Your task to perform on an android device: clear all cookies in the chrome app Image 0: 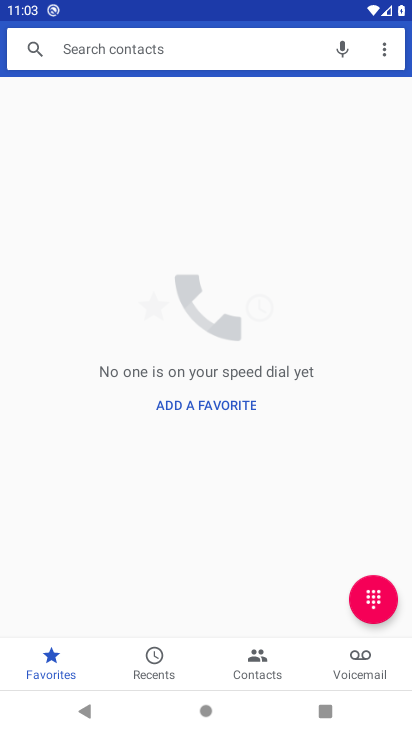
Step 0: press home button
Your task to perform on an android device: clear all cookies in the chrome app Image 1: 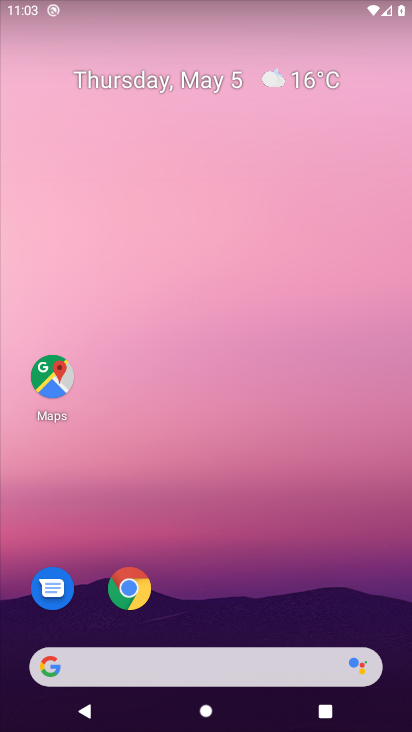
Step 1: drag from (232, 618) to (212, 96)
Your task to perform on an android device: clear all cookies in the chrome app Image 2: 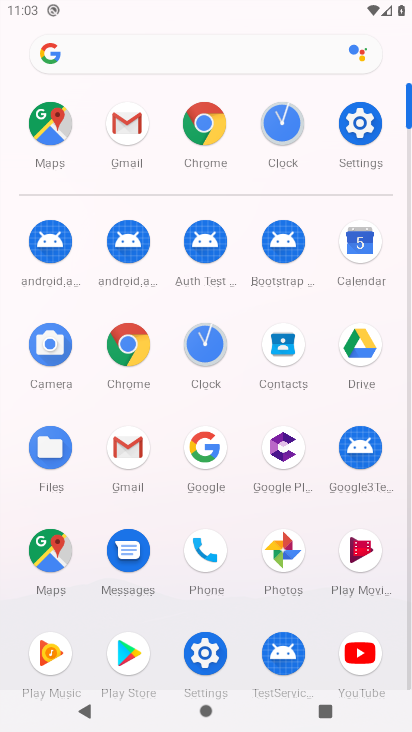
Step 2: click (201, 145)
Your task to perform on an android device: clear all cookies in the chrome app Image 3: 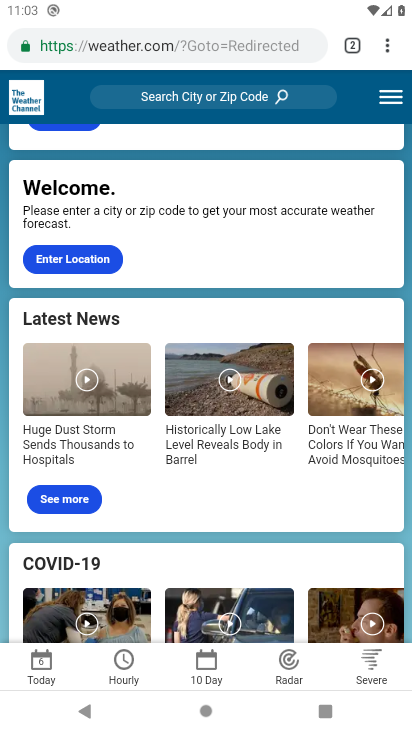
Step 3: drag from (389, 48) to (330, 257)
Your task to perform on an android device: clear all cookies in the chrome app Image 4: 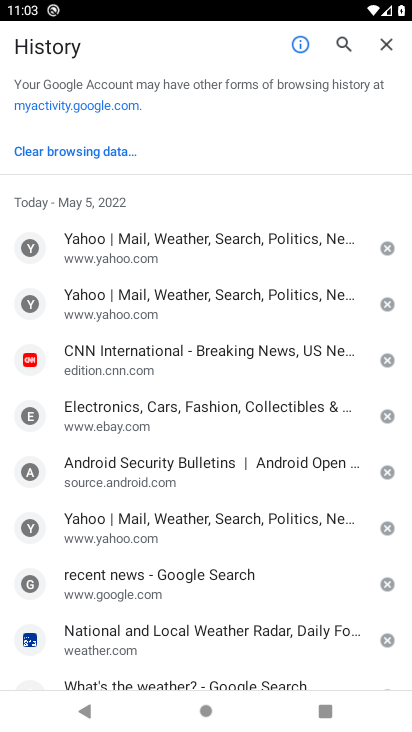
Step 4: click (77, 153)
Your task to perform on an android device: clear all cookies in the chrome app Image 5: 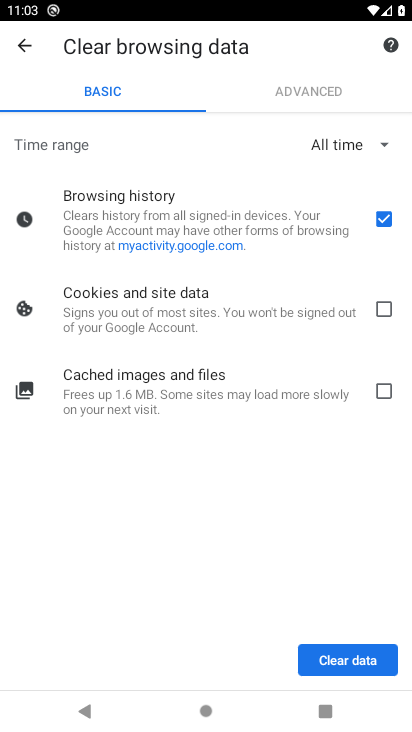
Step 5: click (379, 304)
Your task to perform on an android device: clear all cookies in the chrome app Image 6: 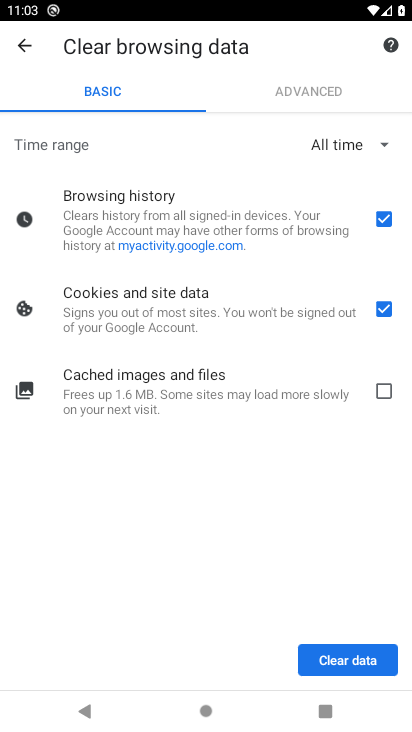
Step 6: click (388, 388)
Your task to perform on an android device: clear all cookies in the chrome app Image 7: 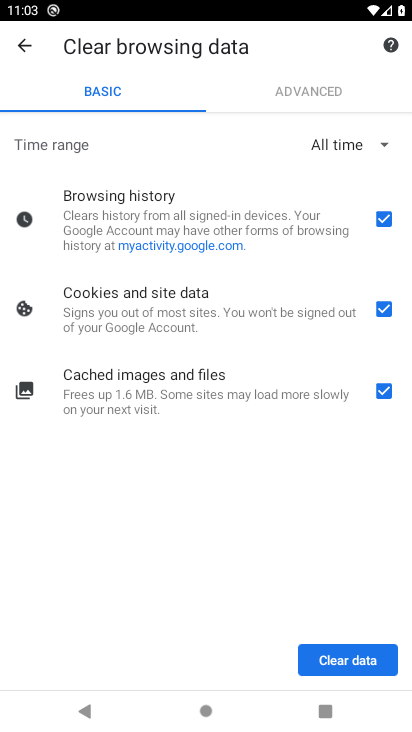
Step 7: click (383, 217)
Your task to perform on an android device: clear all cookies in the chrome app Image 8: 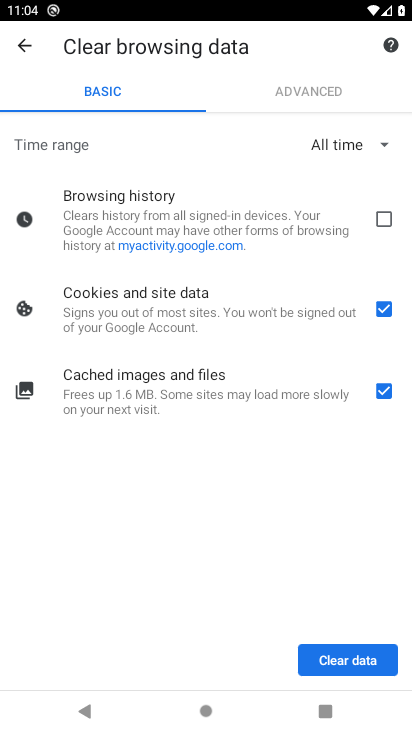
Step 8: click (386, 392)
Your task to perform on an android device: clear all cookies in the chrome app Image 9: 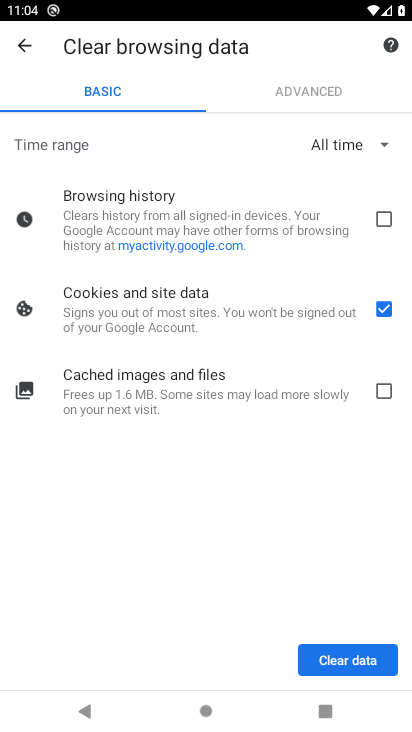
Step 9: click (372, 653)
Your task to perform on an android device: clear all cookies in the chrome app Image 10: 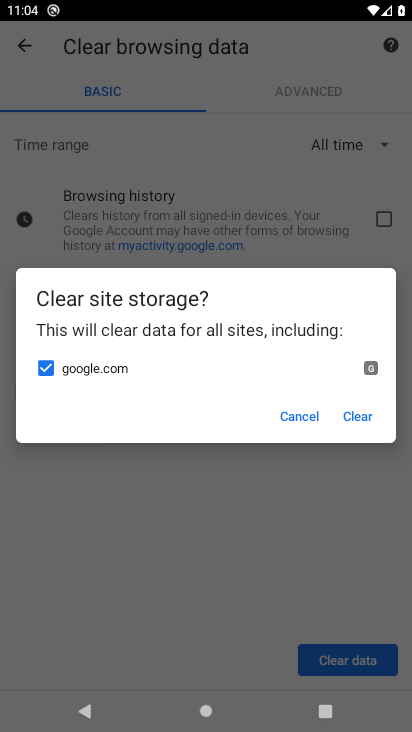
Step 10: click (352, 416)
Your task to perform on an android device: clear all cookies in the chrome app Image 11: 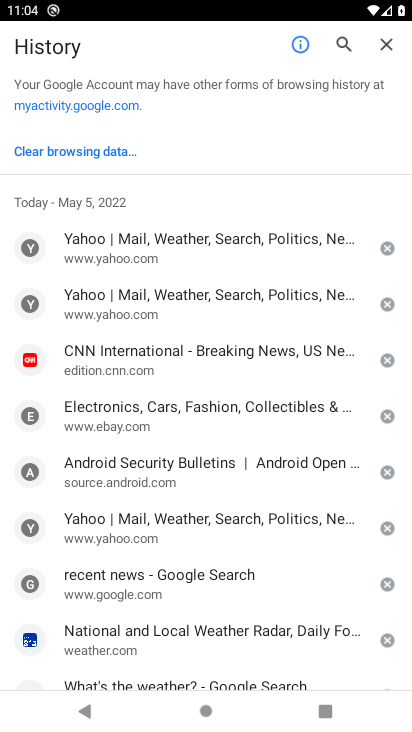
Step 11: task complete